Your task to perform on an android device: What is the recent news? Image 0: 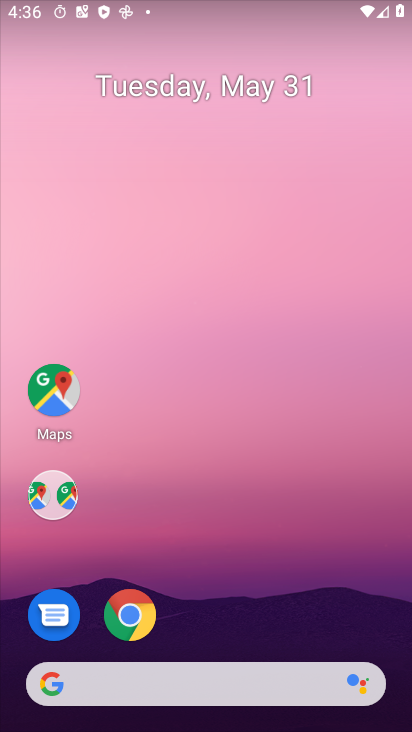
Step 0: drag from (287, 461) to (324, 473)
Your task to perform on an android device: What is the recent news? Image 1: 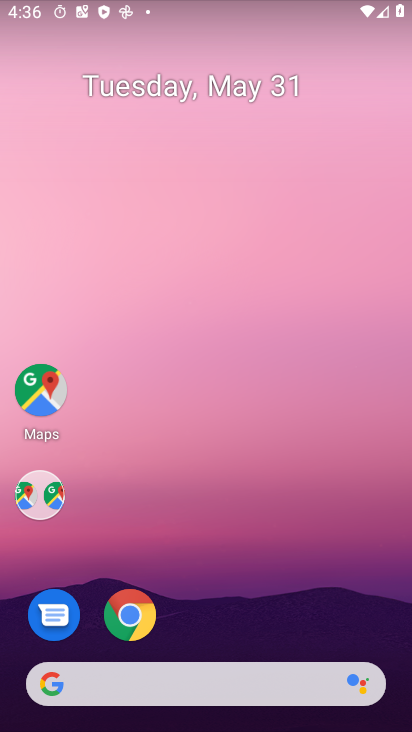
Step 1: drag from (17, 259) to (411, 439)
Your task to perform on an android device: What is the recent news? Image 2: 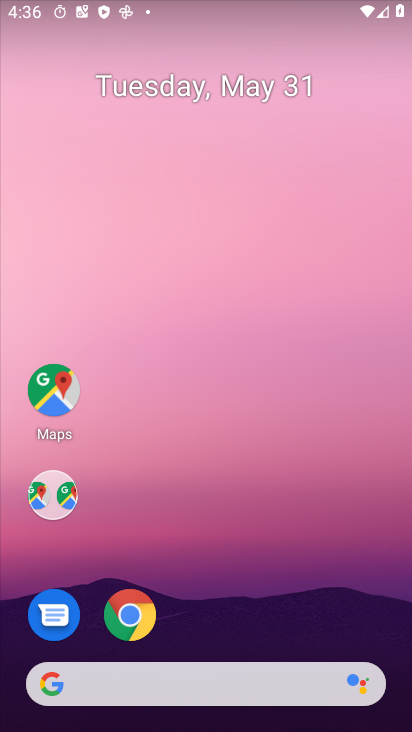
Step 2: drag from (56, 275) to (380, 411)
Your task to perform on an android device: What is the recent news? Image 3: 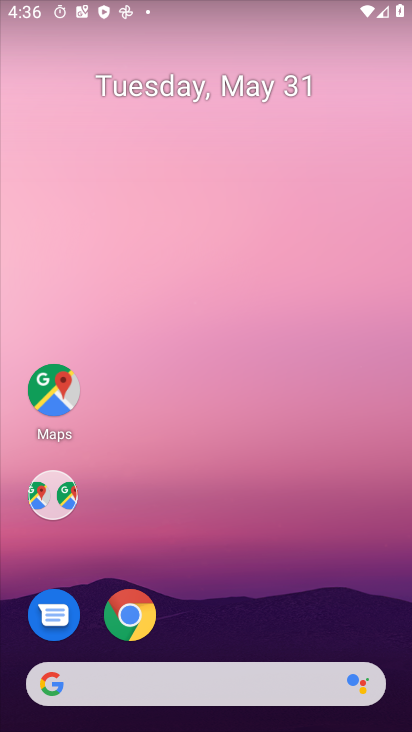
Step 3: drag from (49, 261) to (404, 462)
Your task to perform on an android device: What is the recent news? Image 4: 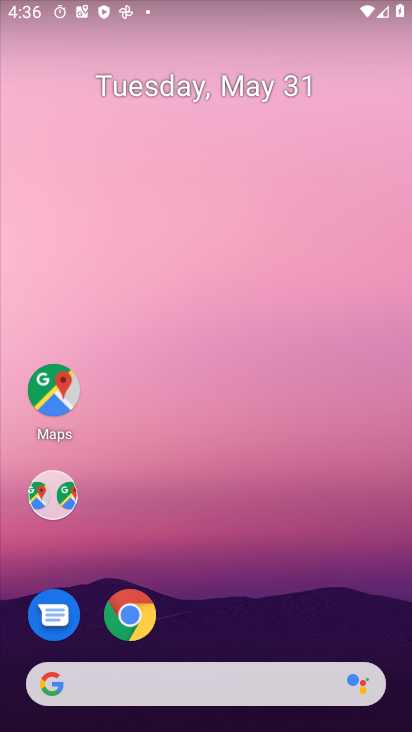
Step 4: drag from (345, 423) to (411, 467)
Your task to perform on an android device: What is the recent news? Image 5: 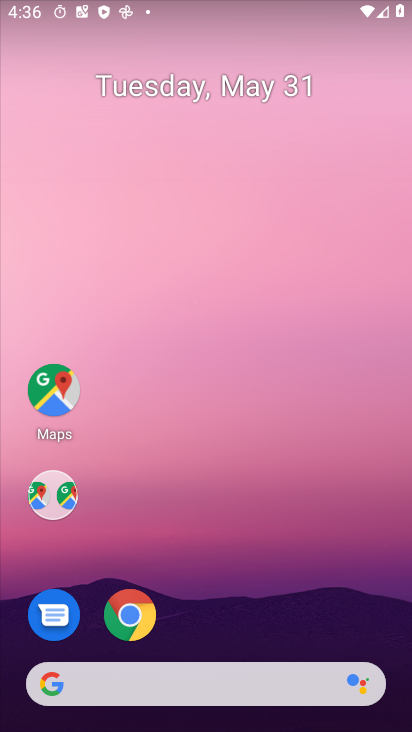
Step 5: drag from (34, 274) to (352, 549)
Your task to perform on an android device: What is the recent news? Image 6: 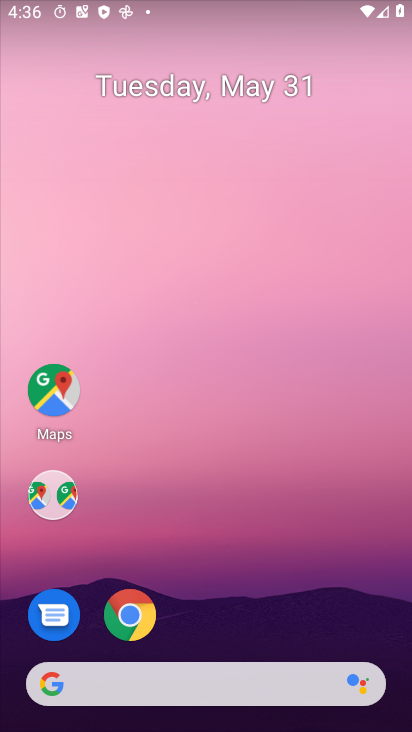
Step 6: drag from (53, 257) to (311, 603)
Your task to perform on an android device: What is the recent news? Image 7: 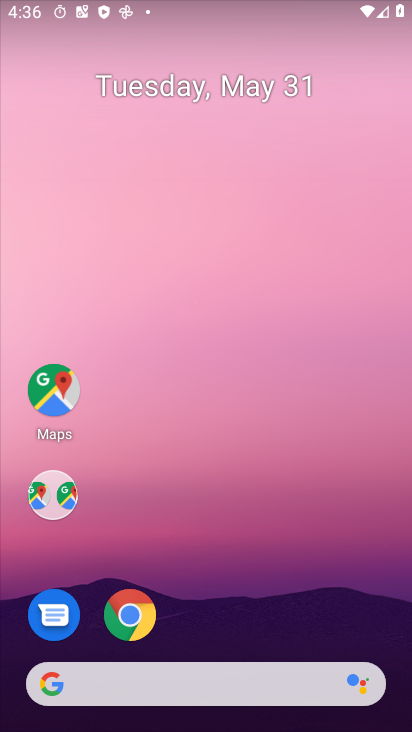
Step 7: drag from (23, 292) to (357, 596)
Your task to perform on an android device: What is the recent news? Image 8: 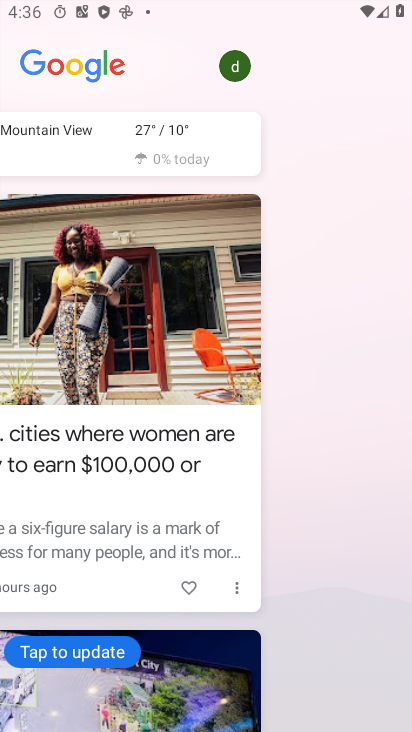
Step 8: drag from (20, 234) to (382, 517)
Your task to perform on an android device: What is the recent news? Image 9: 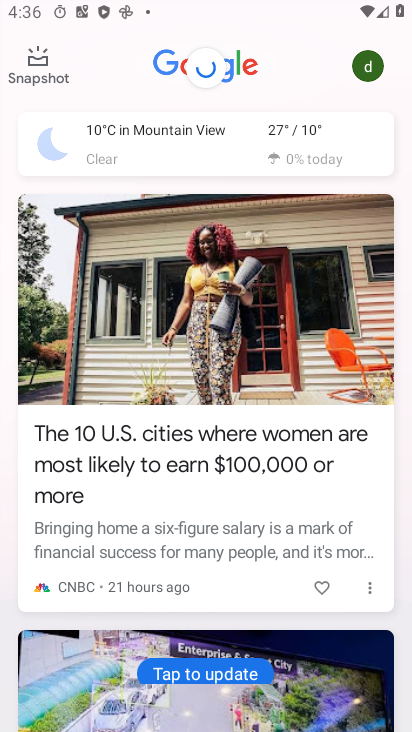
Step 9: drag from (240, 516) to (256, 232)
Your task to perform on an android device: What is the recent news? Image 10: 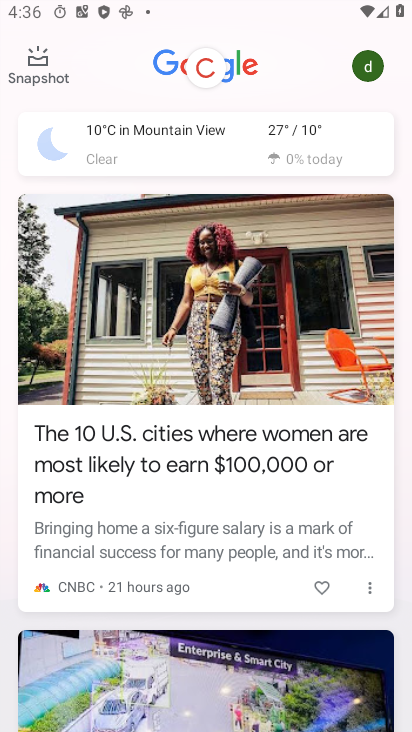
Step 10: drag from (224, 466) to (239, 215)
Your task to perform on an android device: What is the recent news? Image 11: 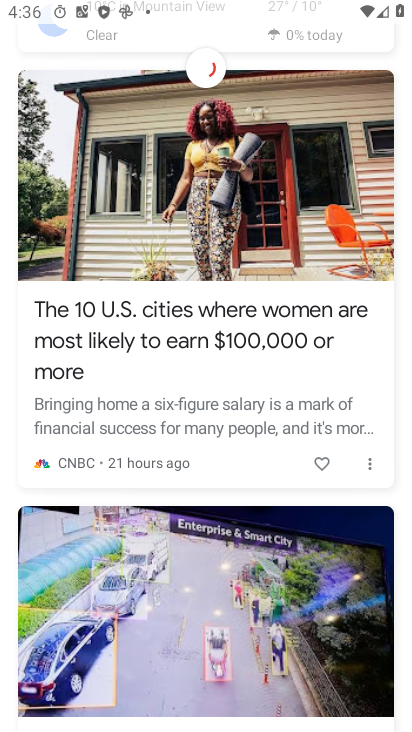
Step 11: click (265, 244)
Your task to perform on an android device: What is the recent news? Image 12: 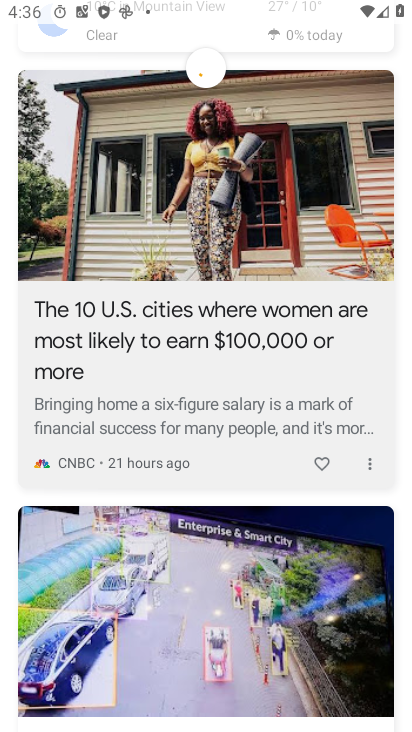
Step 12: task complete